Your task to perform on an android device: Turn off the flashlight Image 0: 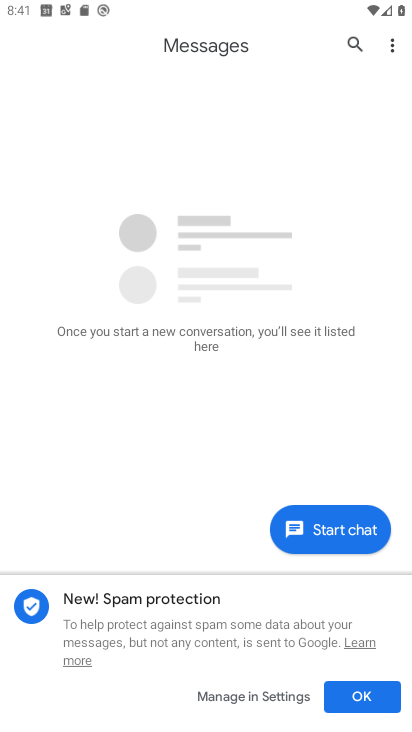
Step 0: drag from (214, 624) to (406, 281)
Your task to perform on an android device: Turn off the flashlight Image 1: 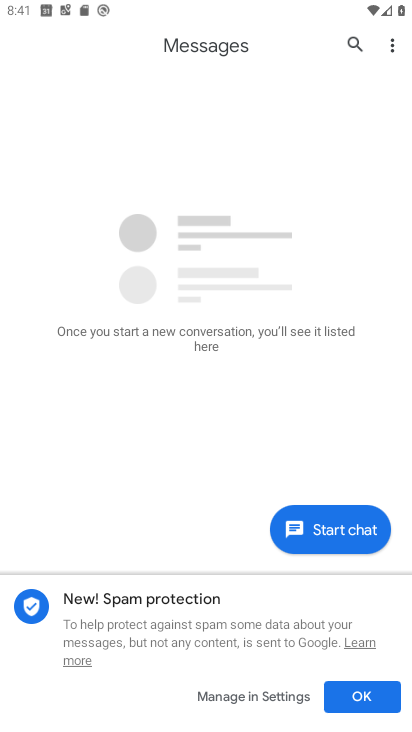
Step 1: press home button
Your task to perform on an android device: Turn off the flashlight Image 2: 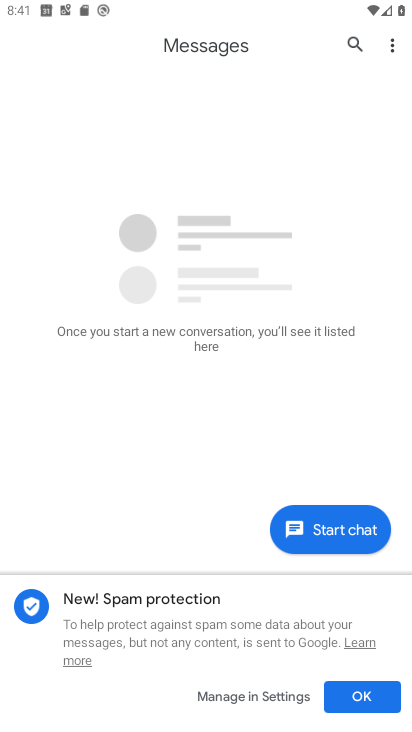
Step 2: drag from (406, 281) to (403, 472)
Your task to perform on an android device: Turn off the flashlight Image 3: 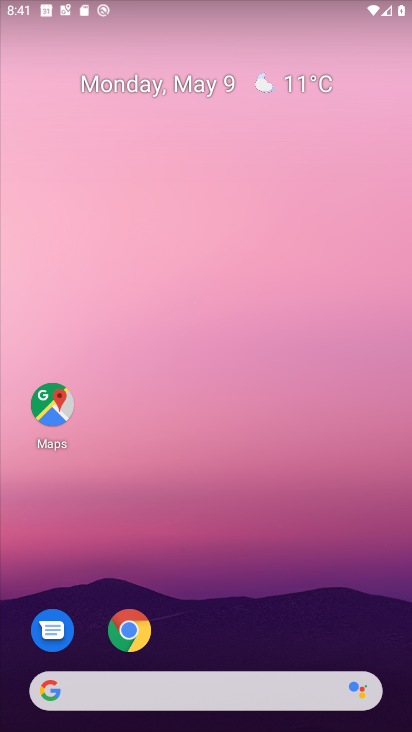
Step 3: drag from (207, 544) to (235, 110)
Your task to perform on an android device: Turn off the flashlight Image 4: 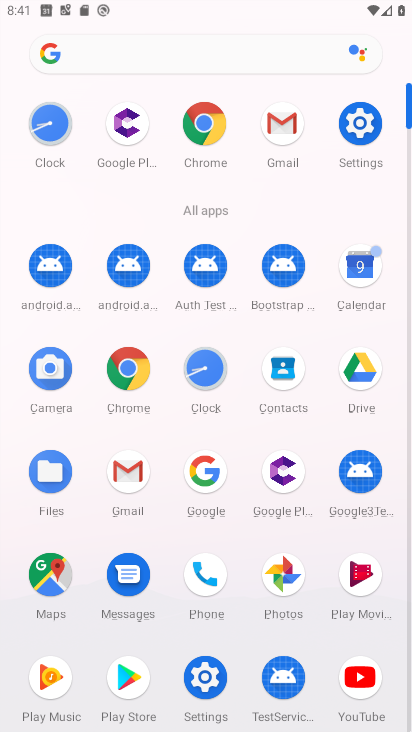
Step 4: click (371, 118)
Your task to perform on an android device: Turn off the flashlight Image 5: 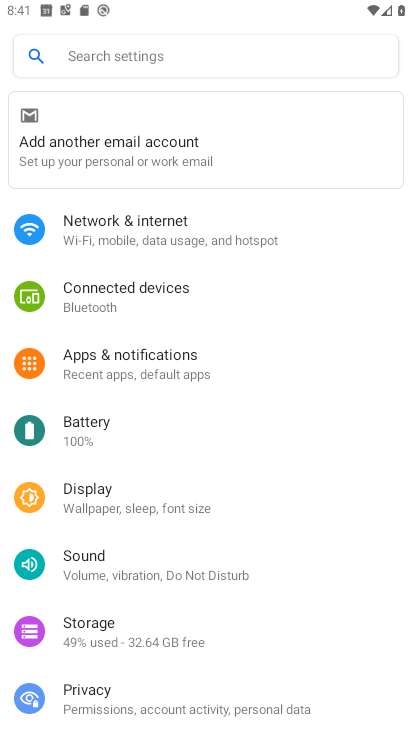
Step 5: click (197, 60)
Your task to perform on an android device: Turn off the flashlight Image 6: 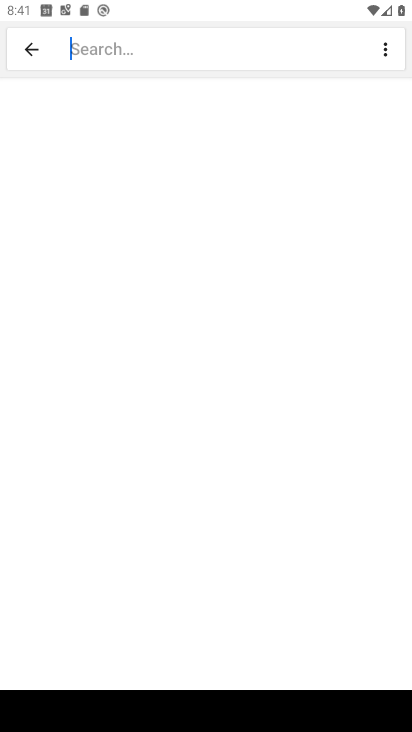
Step 6: type "flashlight"
Your task to perform on an android device: Turn off the flashlight Image 7: 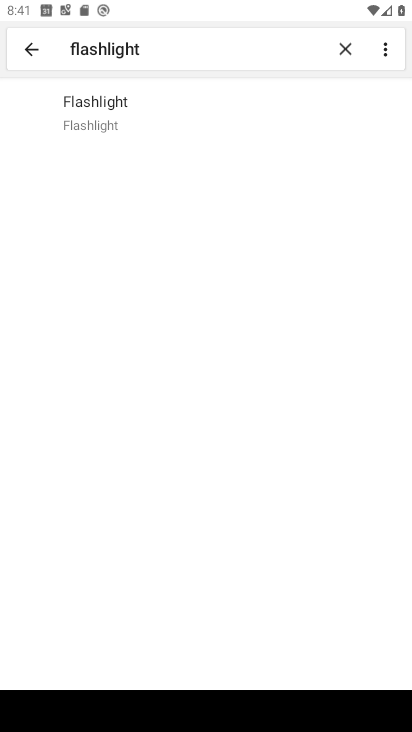
Step 7: click (135, 128)
Your task to perform on an android device: Turn off the flashlight Image 8: 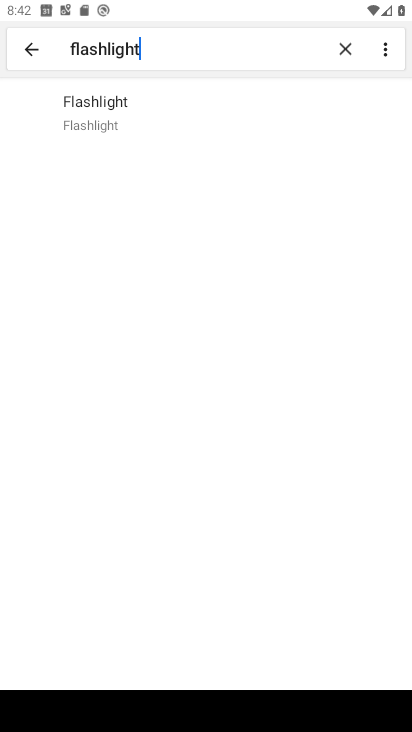
Step 8: click (134, 126)
Your task to perform on an android device: Turn off the flashlight Image 9: 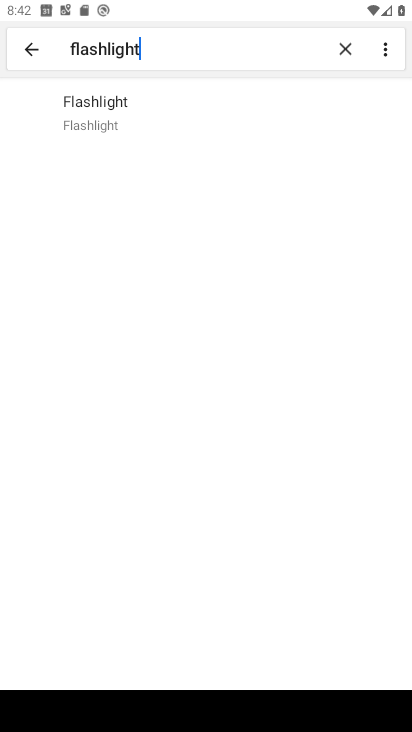
Step 9: task complete